Your task to perform on an android device: turn on notifications settings in the gmail app Image 0: 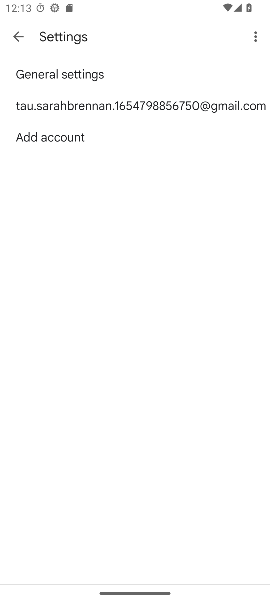
Step 0: press home button
Your task to perform on an android device: turn on notifications settings in the gmail app Image 1: 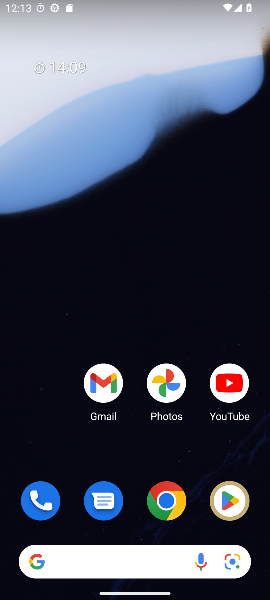
Step 1: click (100, 381)
Your task to perform on an android device: turn on notifications settings in the gmail app Image 2: 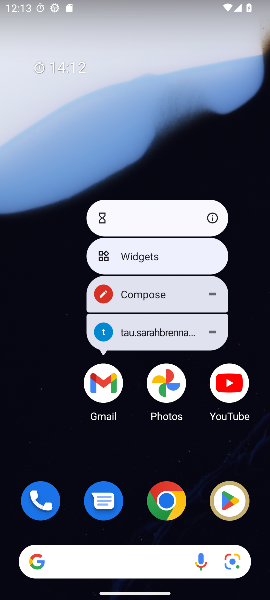
Step 2: click (213, 214)
Your task to perform on an android device: turn on notifications settings in the gmail app Image 3: 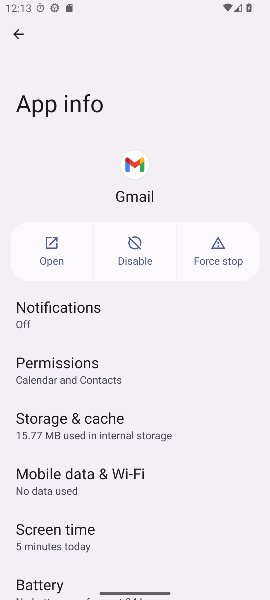
Step 3: click (80, 301)
Your task to perform on an android device: turn on notifications settings in the gmail app Image 4: 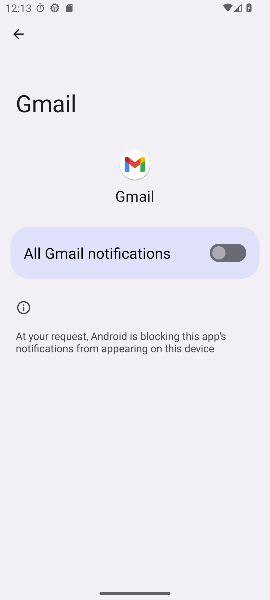
Step 4: click (225, 256)
Your task to perform on an android device: turn on notifications settings in the gmail app Image 5: 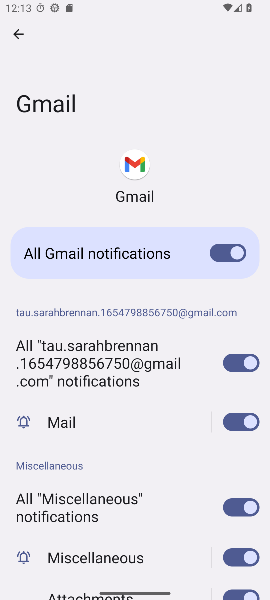
Step 5: task complete